Your task to perform on an android device: When is my next meeting? Image 0: 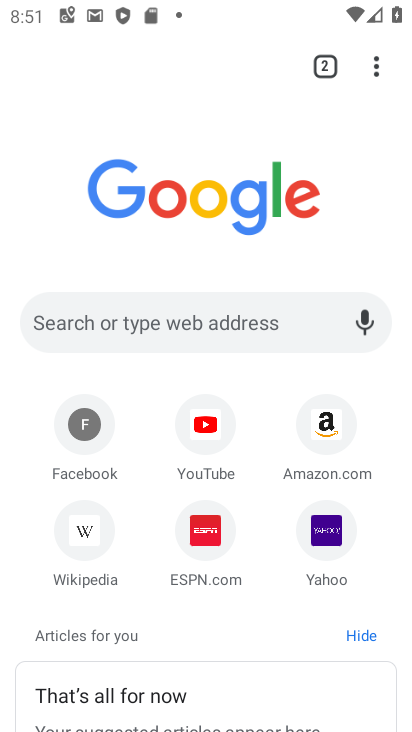
Step 0: press home button
Your task to perform on an android device: When is my next meeting? Image 1: 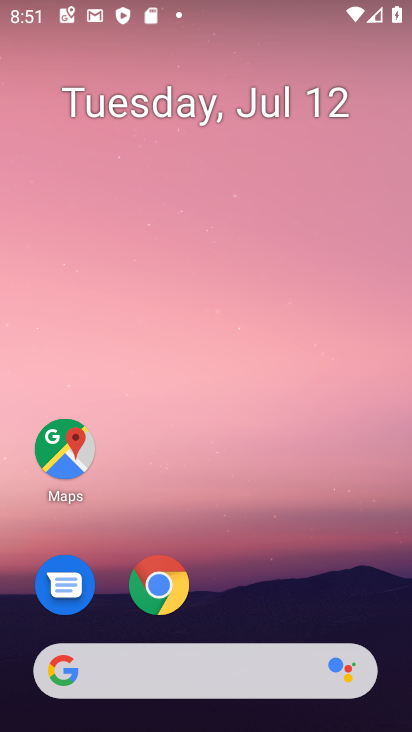
Step 1: drag from (257, 575) to (255, 22)
Your task to perform on an android device: When is my next meeting? Image 2: 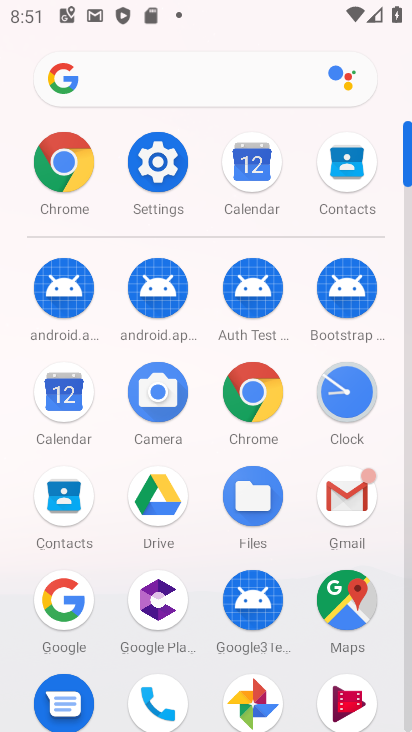
Step 2: click (247, 169)
Your task to perform on an android device: When is my next meeting? Image 3: 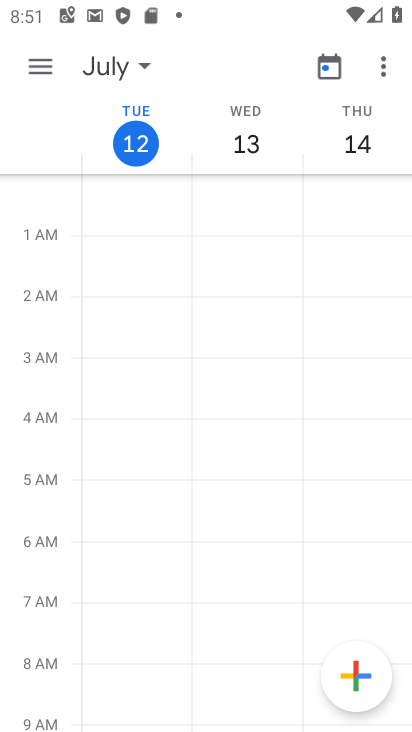
Step 3: click (40, 67)
Your task to perform on an android device: When is my next meeting? Image 4: 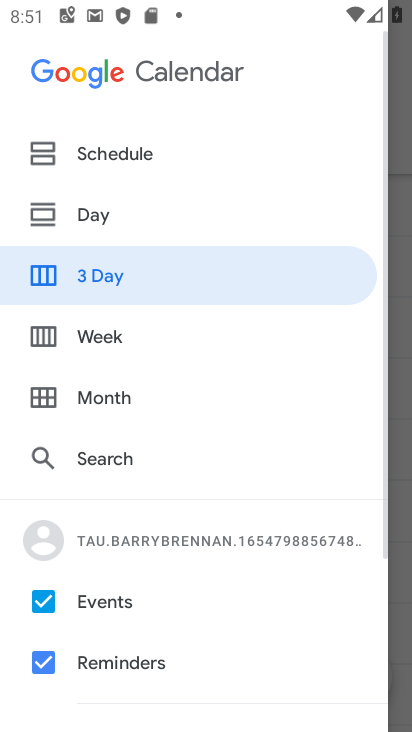
Step 4: click (67, 144)
Your task to perform on an android device: When is my next meeting? Image 5: 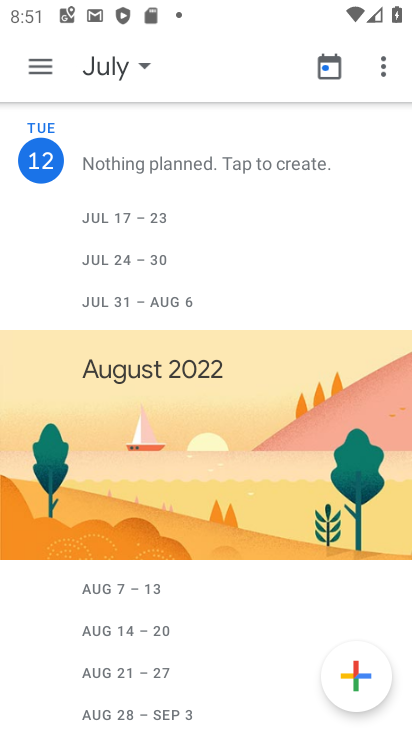
Step 5: task complete